Your task to perform on an android device: Check the news Image 0: 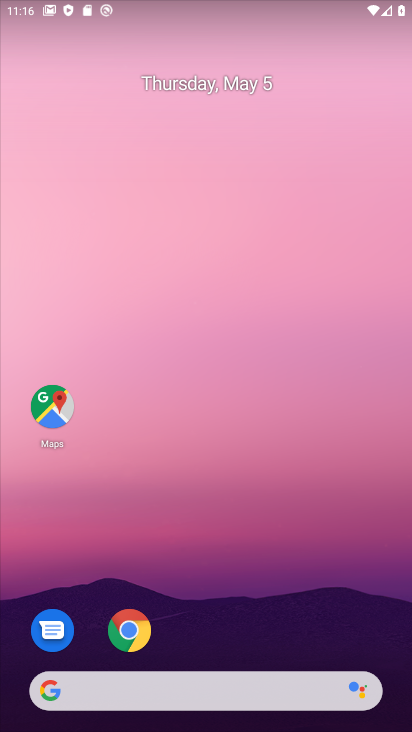
Step 0: drag from (293, 618) to (279, 98)
Your task to perform on an android device: Check the news Image 1: 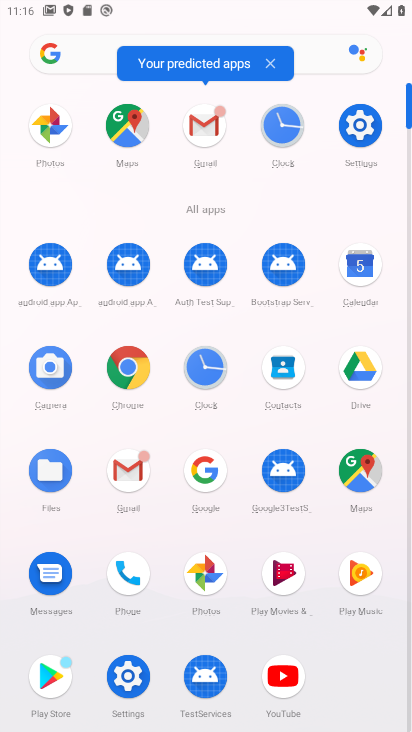
Step 1: click (132, 378)
Your task to perform on an android device: Check the news Image 2: 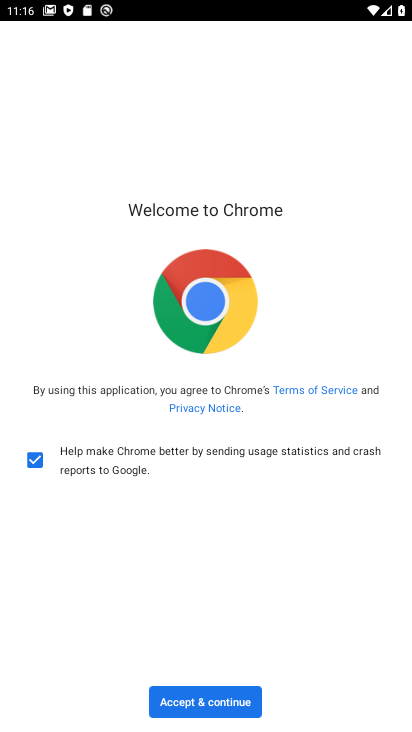
Step 2: click (242, 692)
Your task to perform on an android device: Check the news Image 3: 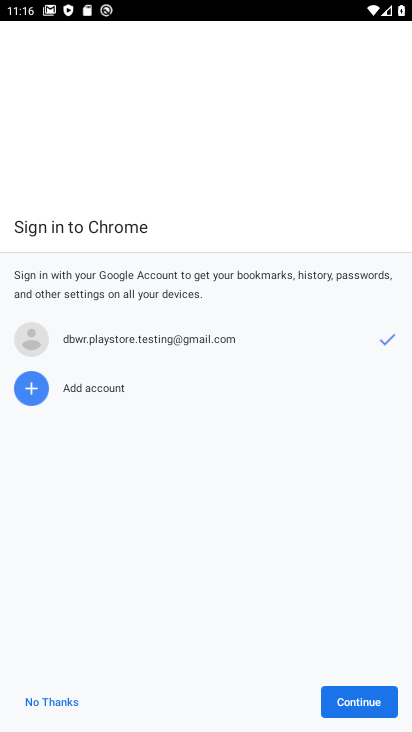
Step 3: click (370, 708)
Your task to perform on an android device: Check the news Image 4: 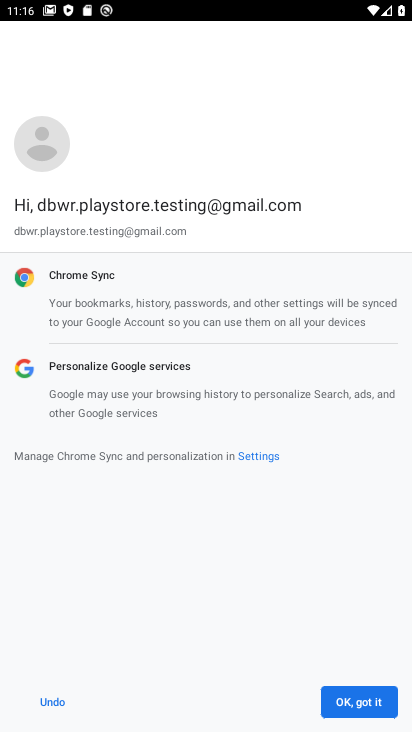
Step 4: click (370, 708)
Your task to perform on an android device: Check the news Image 5: 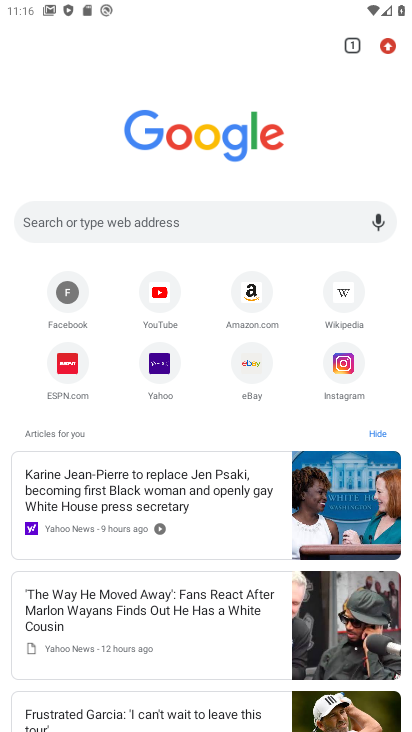
Step 5: click (184, 218)
Your task to perform on an android device: Check the news Image 6: 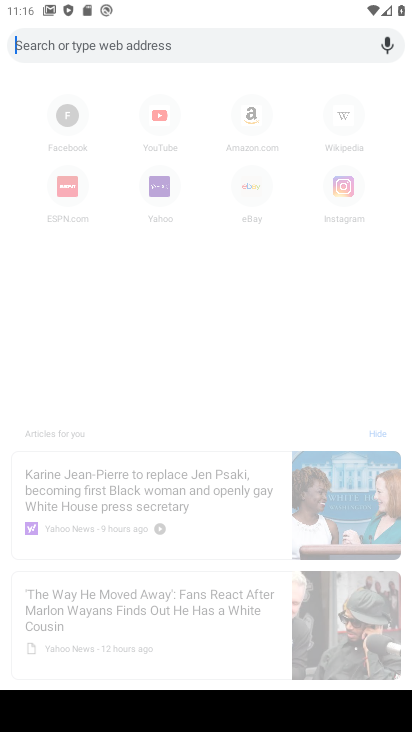
Step 6: type "news"
Your task to perform on an android device: Check the news Image 7: 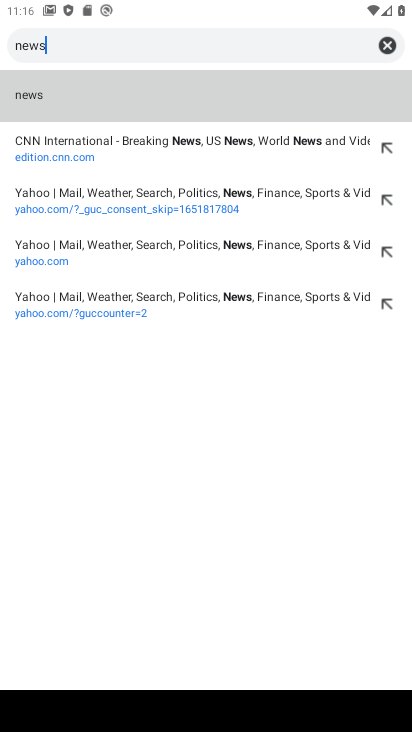
Step 7: click (22, 101)
Your task to perform on an android device: Check the news Image 8: 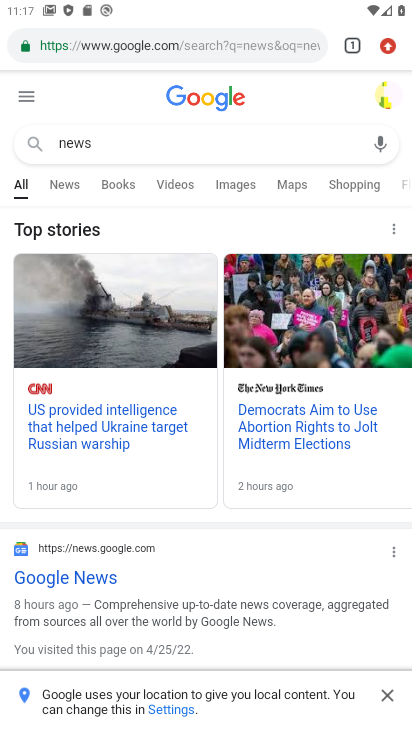
Step 8: click (80, 184)
Your task to perform on an android device: Check the news Image 9: 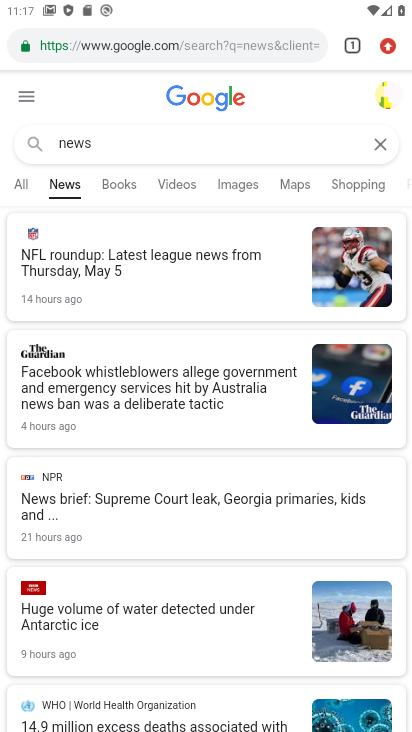
Step 9: task complete